Your task to perform on an android device: Open Chrome and go to settings Image 0: 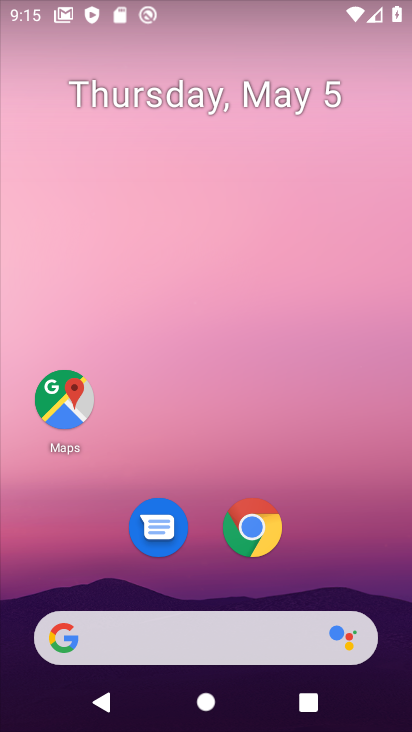
Step 0: click (256, 532)
Your task to perform on an android device: Open Chrome and go to settings Image 1: 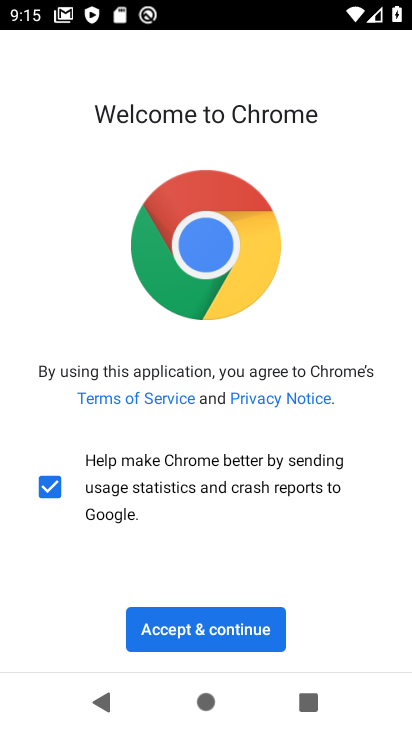
Step 1: click (218, 621)
Your task to perform on an android device: Open Chrome and go to settings Image 2: 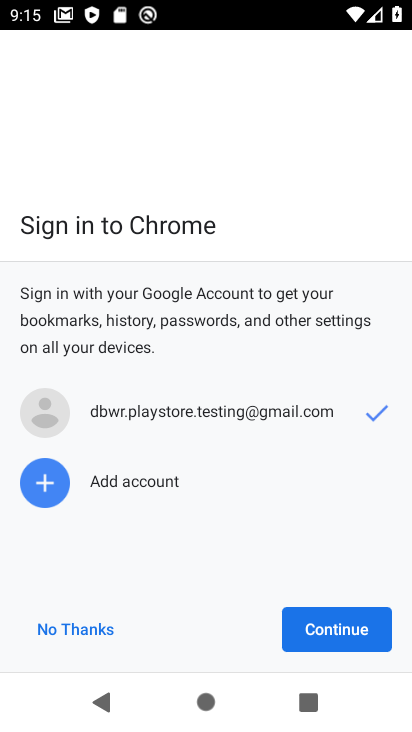
Step 2: click (300, 632)
Your task to perform on an android device: Open Chrome and go to settings Image 3: 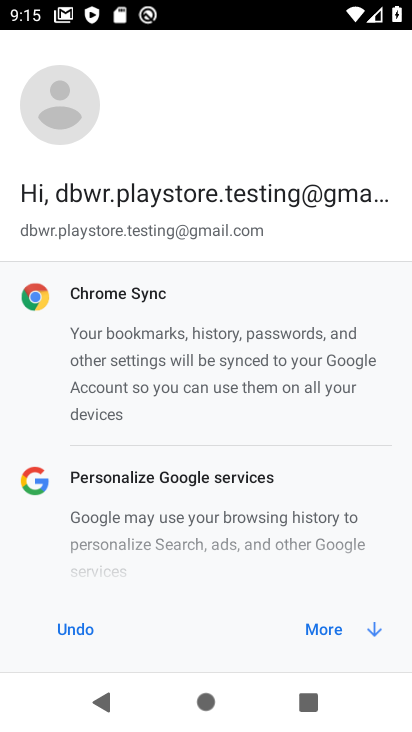
Step 3: click (300, 632)
Your task to perform on an android device: Open Chrome and go to settings Image 4: 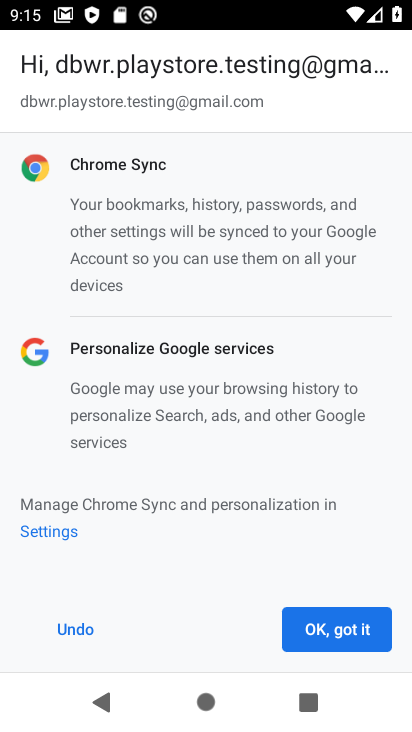
Step 4: click (332, 640)
Your task to perform on an android device: Open Chrome and go to settings Image 5: 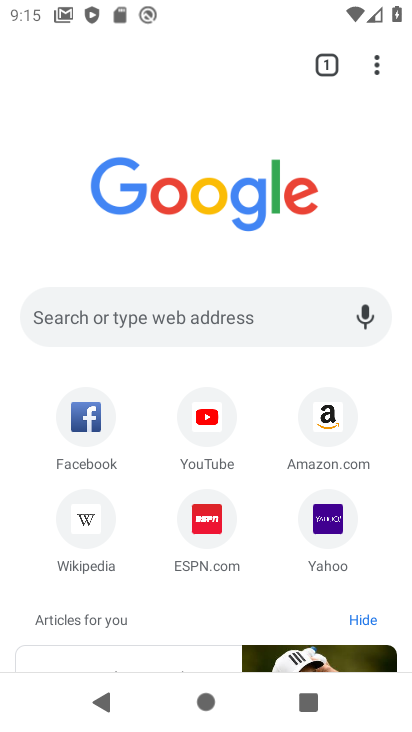
Step 5: task complete